Your task to perform on an android device: change the clock display to analog Image 0: 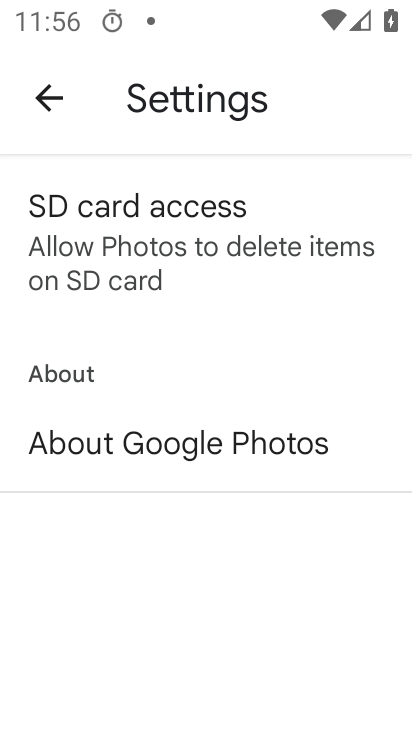
Step 0: press home button
Your task to perform on an android device: change the clock display to analog Image 1: 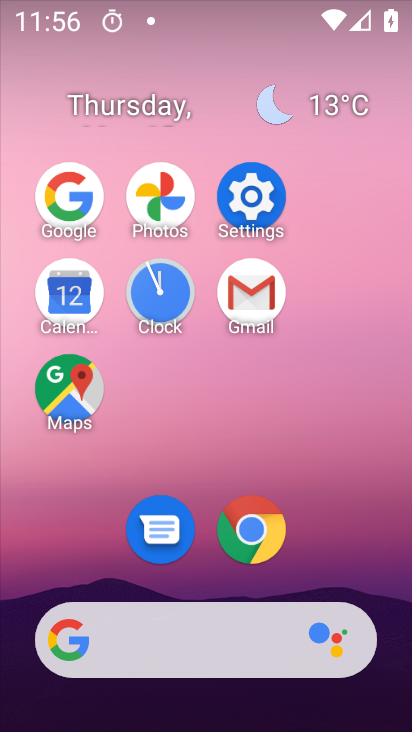
Step 1: click (166, 299)
Your task to perform on an android device: change the clock display to analog Image 2: 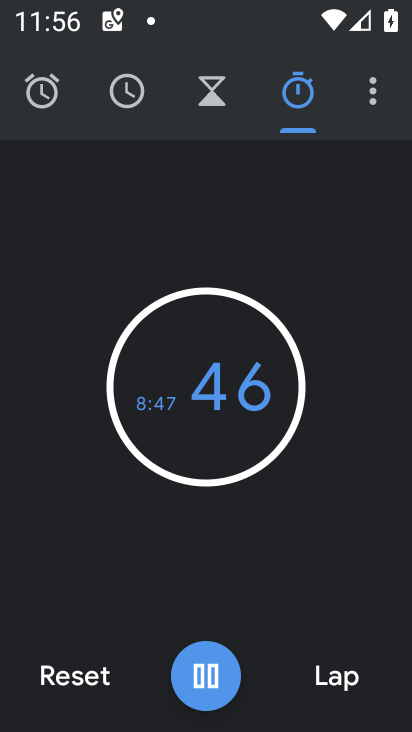
Step 2: click (380, 86)
Your task to perform on an android device: change the clock display to analog Image 3: 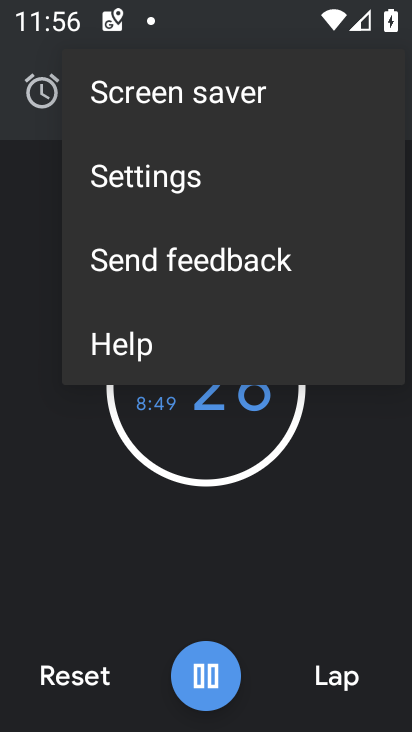
Step 3: click (113, 183)
Your task to perform on an android device: change the clock display to analog Image 4: 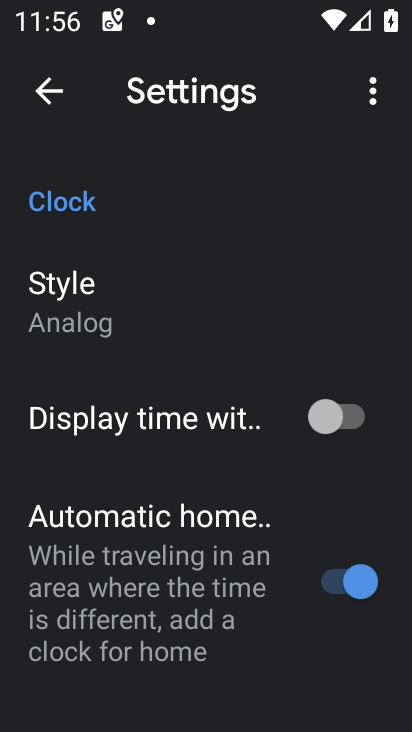
Step 4: task complete